Your task to perform on an android device: Go to sound settings Image 0: 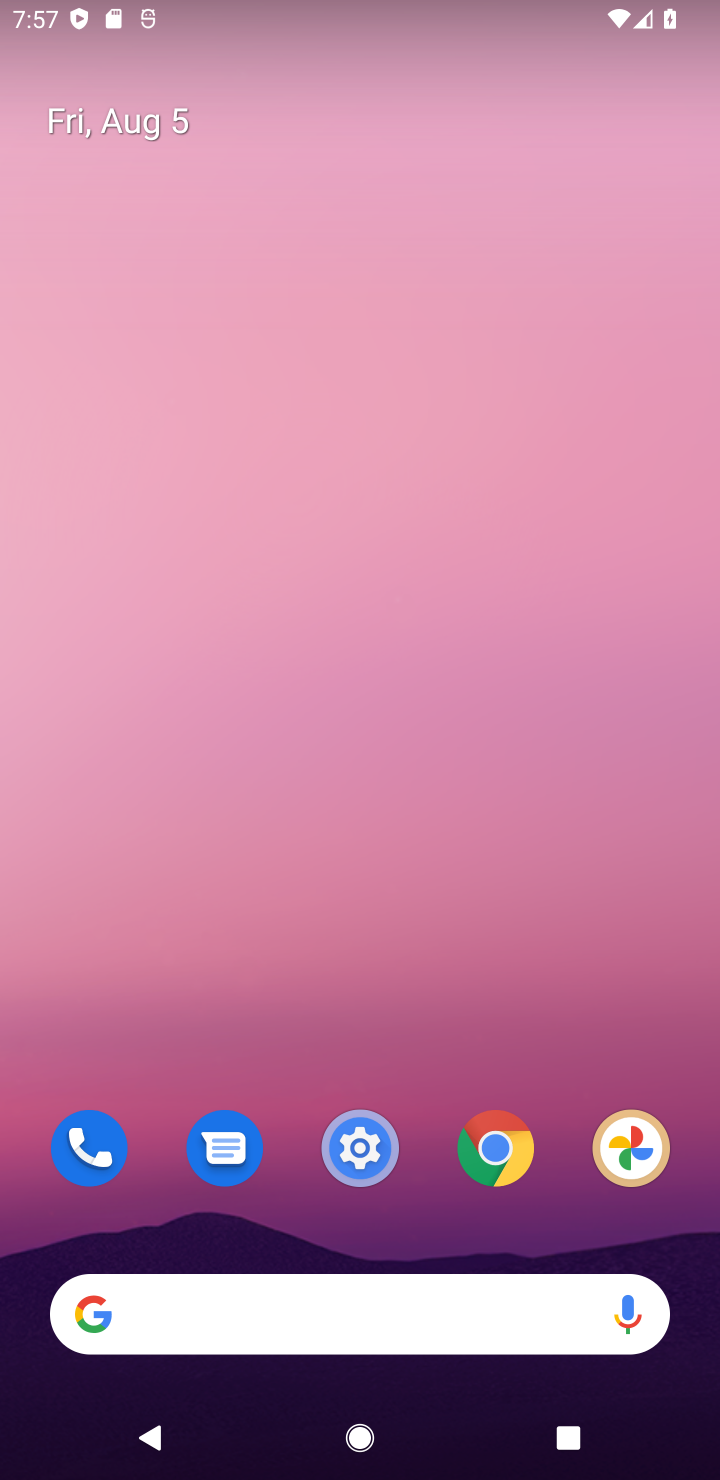
Step 0: click (368, 1183)
Your task to perform on an android device: Go to sound settings Image 1: 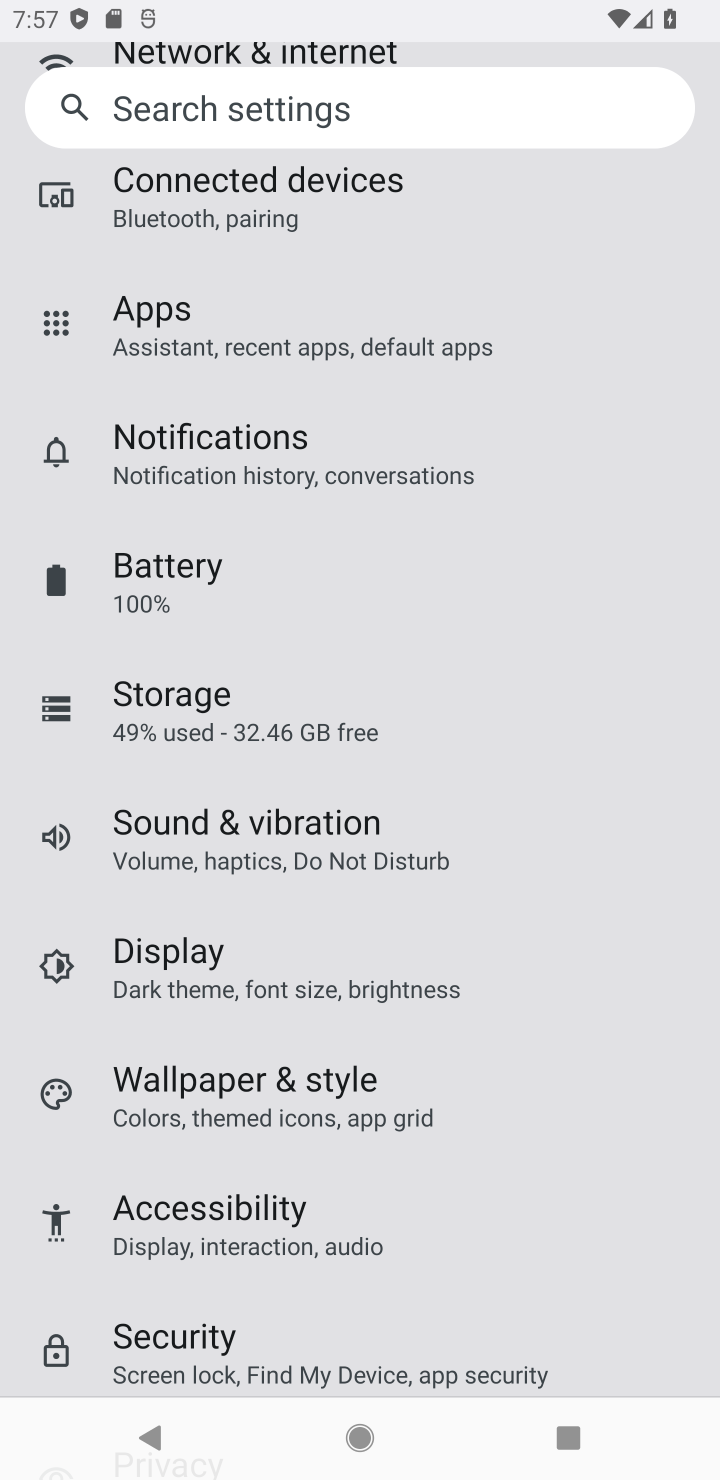
Step 1: click (306, 809)
Your task to perform on an android device: Go to sound settings Image 2: 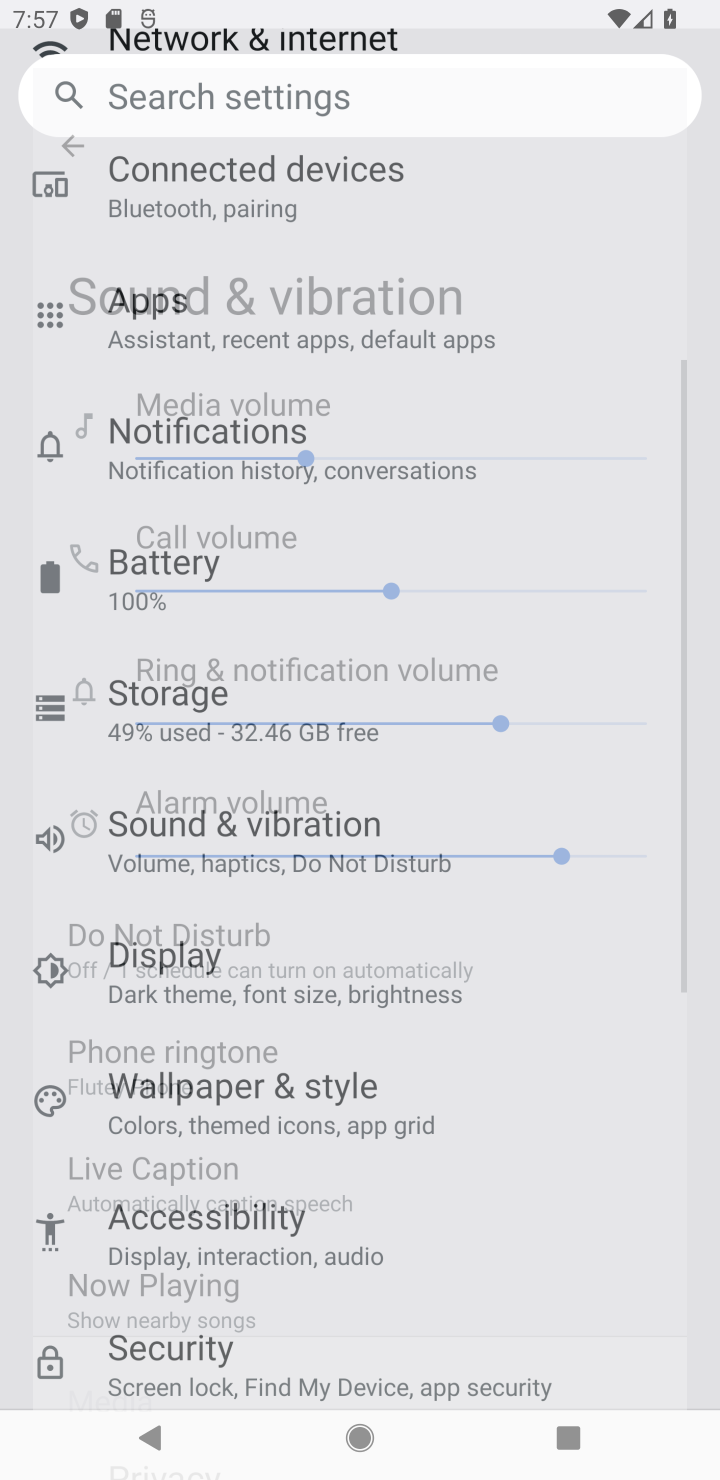
Step 2: task complete